Your task to perform on an android device: see creations saved in the google photos Image 0: 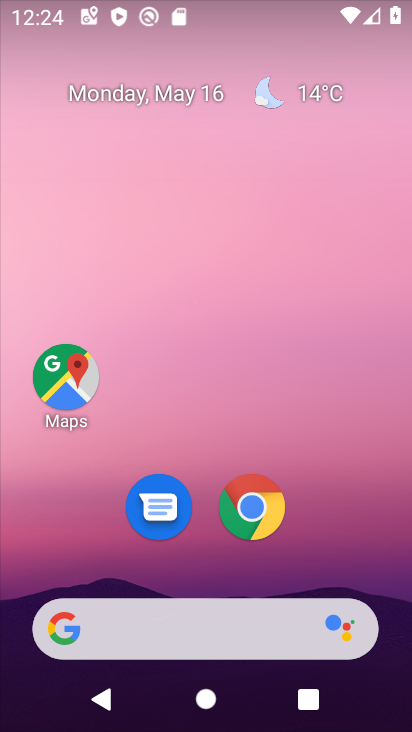
Step 0: drag from (214, 556) to (218, 184)
Your task to perform on an android device: see creations saved in the google photos Image 1: 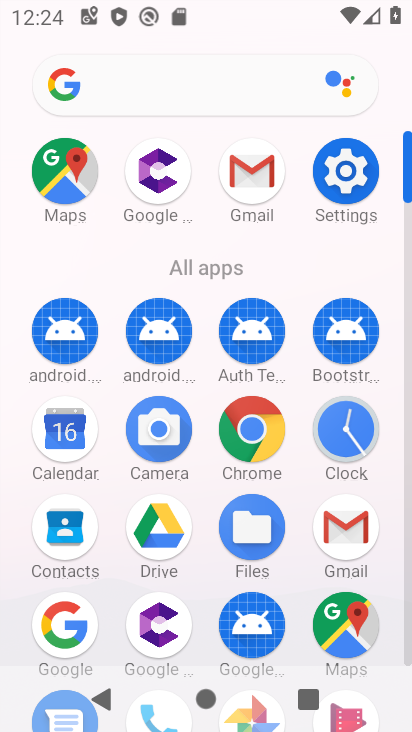
Step 1: drag from (204, 243) to (227, 62)
Your task to perform on an android device: see creations saved in the google photos Image 2: 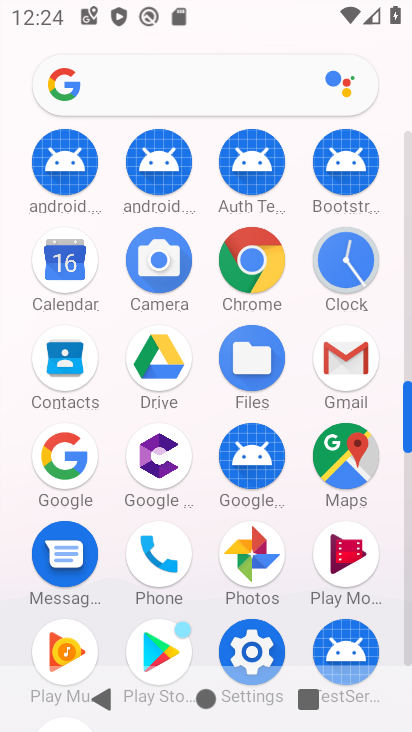
Step 2: click (259, 552)
Your task to perform on an android device: see creations saved in the google photos Image 3: 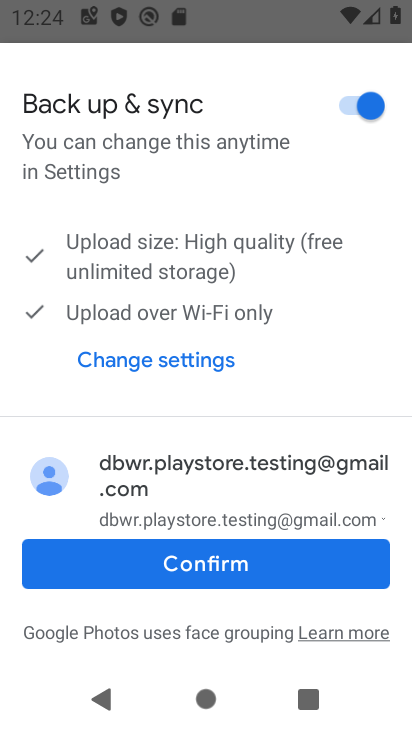
Step 3: click (220, 550)
Your task to perform on an android device: see creations saved in the google photos Image 4: 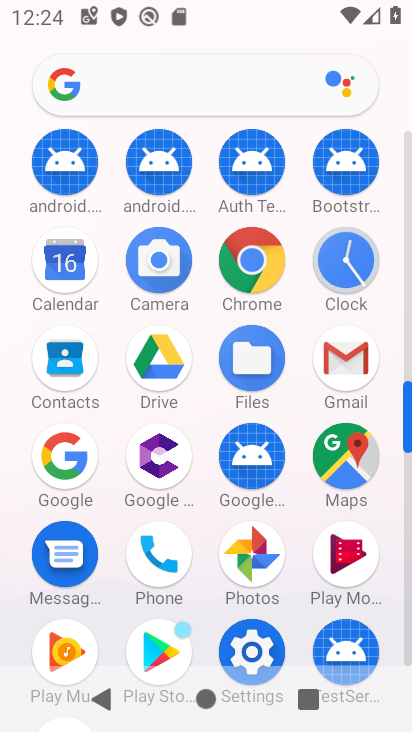
Step 4: click (247, 571)
Your task to perform on an android device: see creations saved in the google photos Image 5: 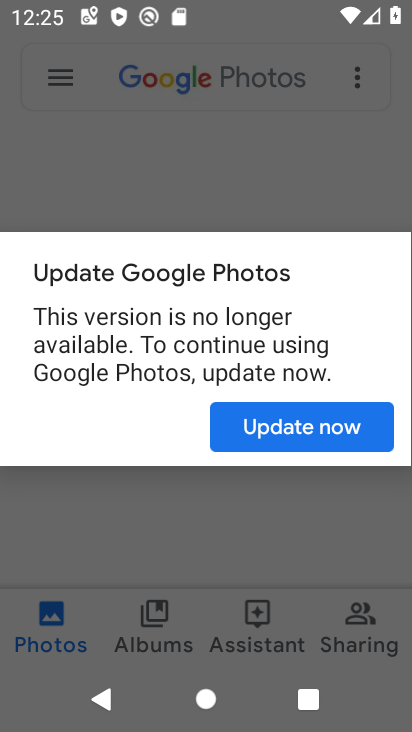
Step 5: click (316, 430)
Your task to perform on an android device: see creations saved in the google photos Image 6: 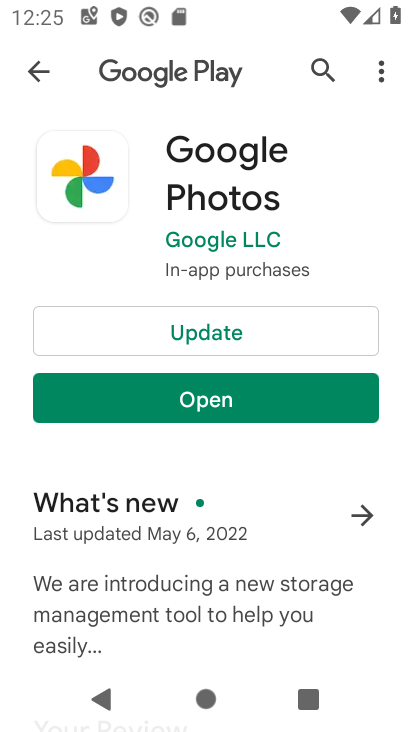
Step 6: click (239, 395)
Your task to perform on an android device: see creations saved in the google photos Image 7: 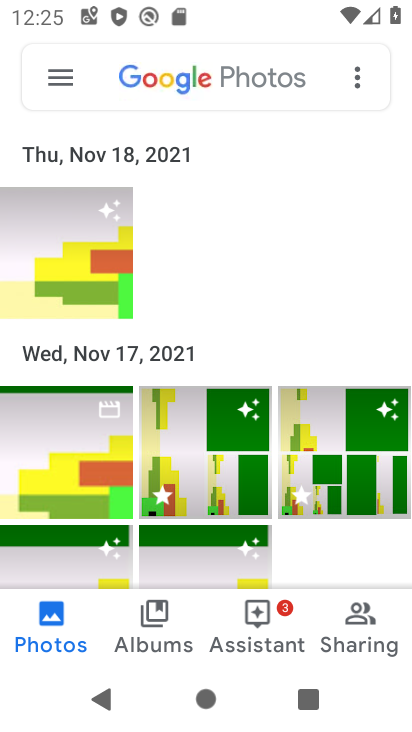
Step 7: click (249, 74)
Your task to perform on an android device: see creations saved in the google photos Image 8: 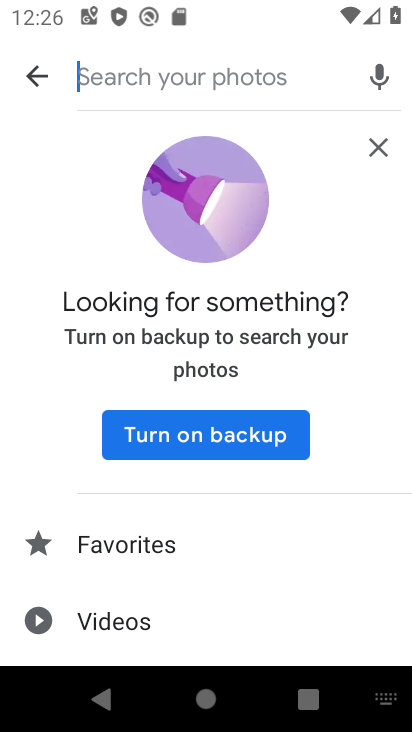
Step 8: drag from (190, 586) to (244, 185)
Your task to perform on an android device: see creations saved in the google photos Image 9: 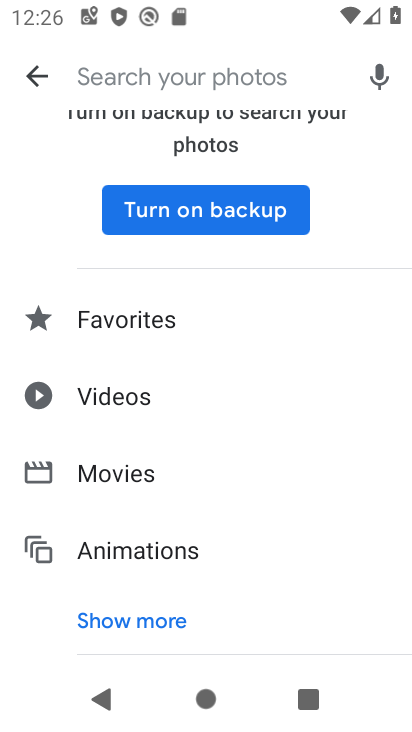
Step 9: drag from (203, 606) to (221, 461)
Your task to perform on an android device: see creations saved in the google photos Image 10: 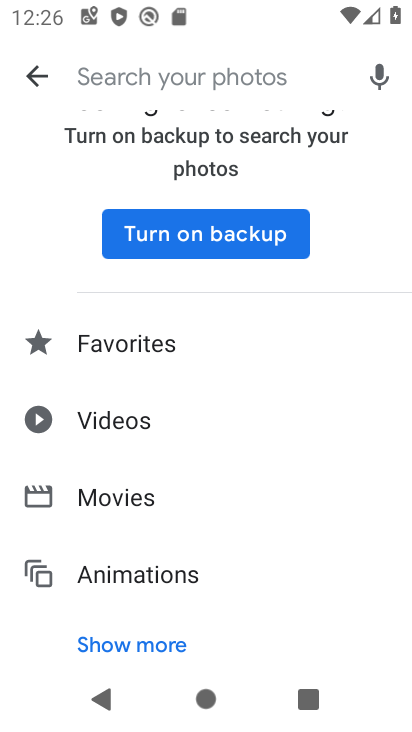
Step 10: click (168, 616)
Your task to perform on an android device: see creations saved in the google photos Image 11: 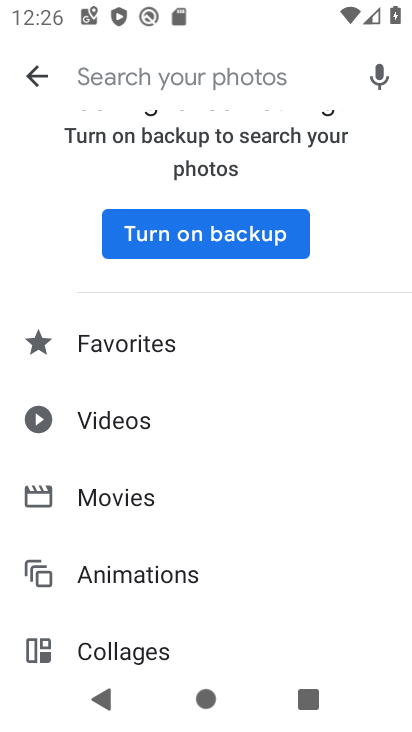
Step 11: drag from (172, 614) to (234, 277)
Your task to perform on an android device: see creations saved in the google photos Image 12: 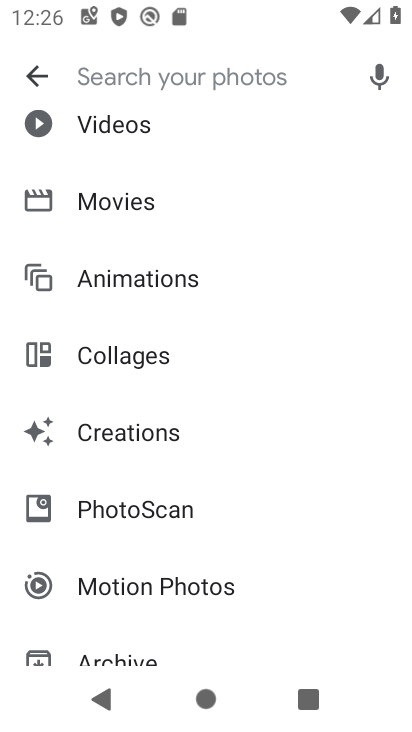
Step 12: drag from (197, 556) to (208, 330)
Your task to perform on an android device: see creations saved in the google photos Image 13: 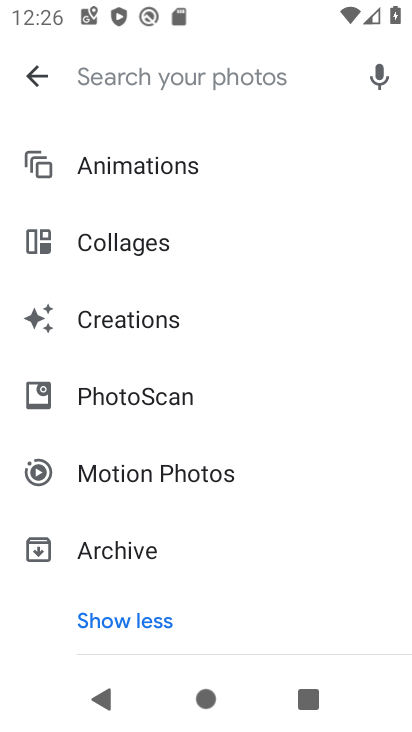
Step 13: click (173, 329)
Your task to perform on an android device: see creations saved in the google photos Image 14: 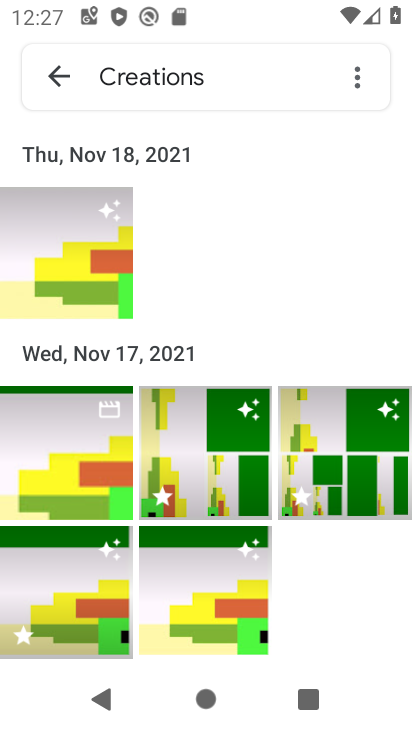
Step 14: task complete